Your task to perform on an android device: change your default location settings in chrome Image 0: 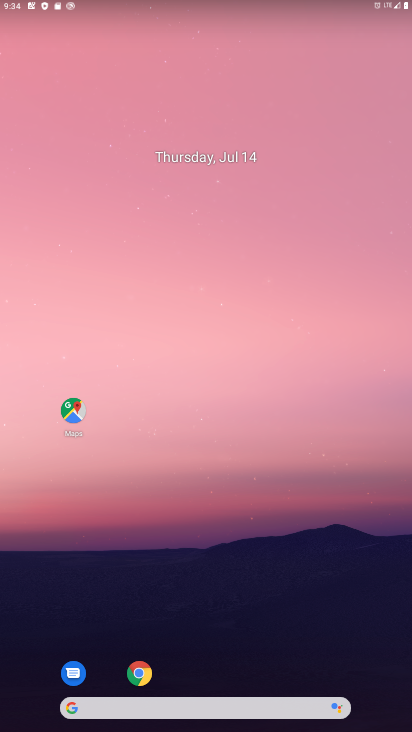
Step 0: click (138, 671)
Your task to perform on an android device: change your default location settings in chrome Image 1: 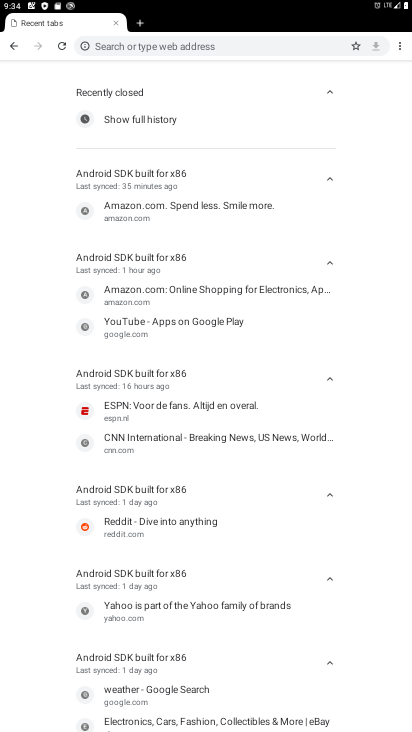
Step 1: click (401, 45)
Your task to perform on an android device: change your default location settings in chrome Image 2: 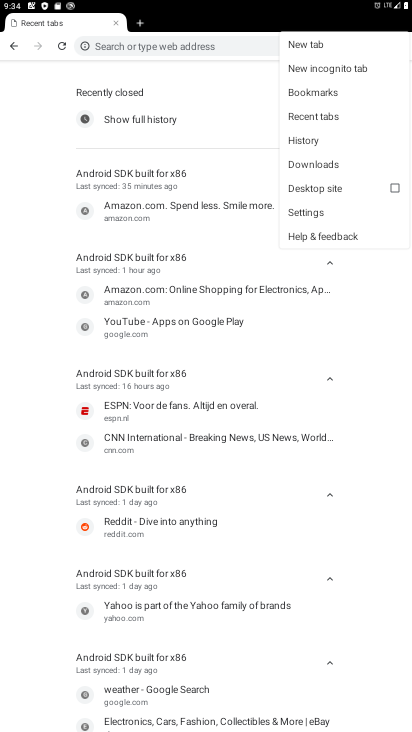
Step 2: click (311, 208)
Your task to perform on an android device: change your default location settings in chrome Image 3: 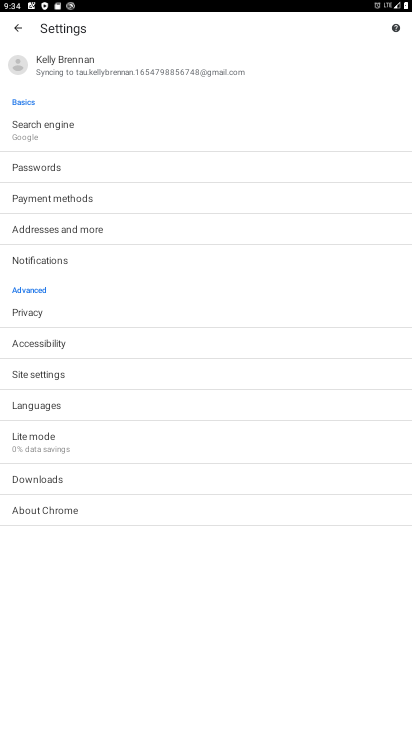
Step 3: click (59, 375)
Your task to perform on an android device: change your default location settings in chrome Image 4: 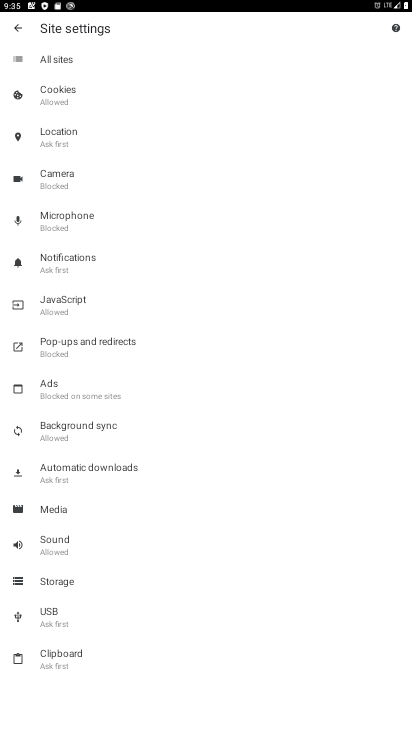
Step 4: click (61, 151)
Your task to perform on an android device: change your default location settings in chrome Image 5: 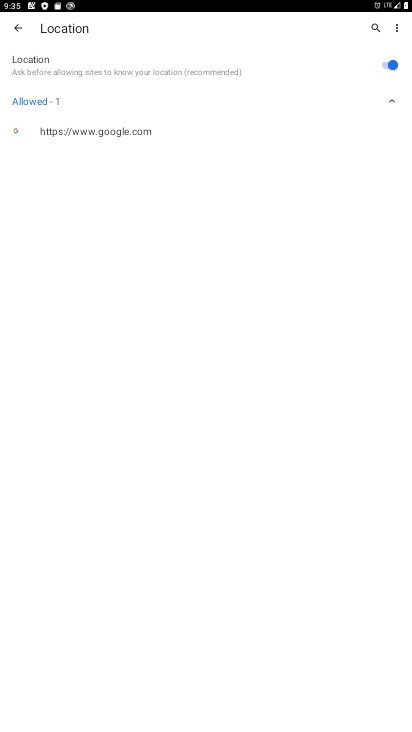
Step 5: click (390, 64)
Your task to perform on an android device: change your default location settings in chrome Image 6: 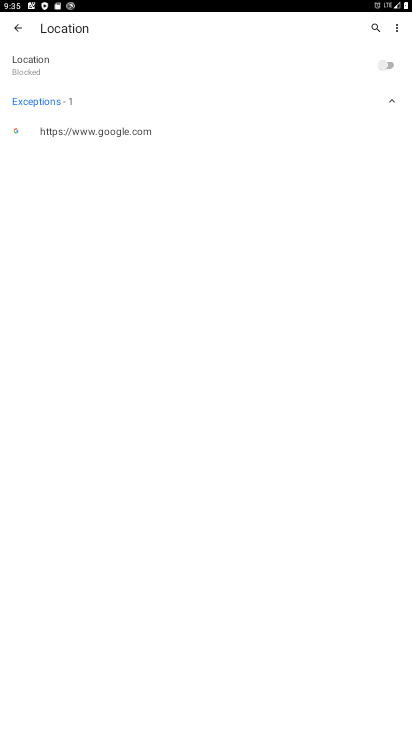
Step 6: task complete